Your task to perform on an android device: turn off notifications in google photos Image 0: 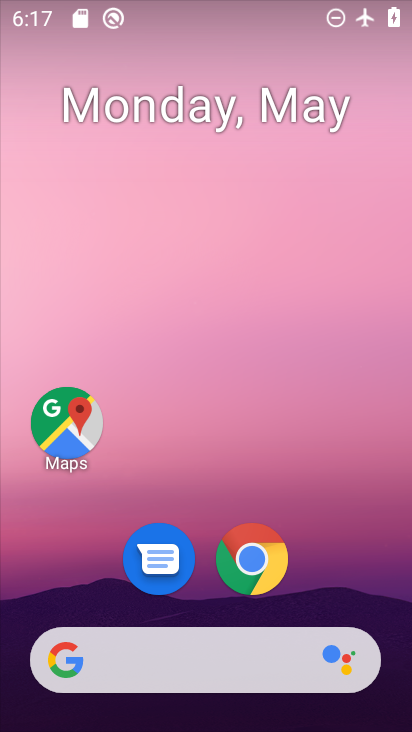
Step 0: drag from (355, 570) to (251, 91)
Your task to perform on an android device: turn off notifications in google photos Image 1: 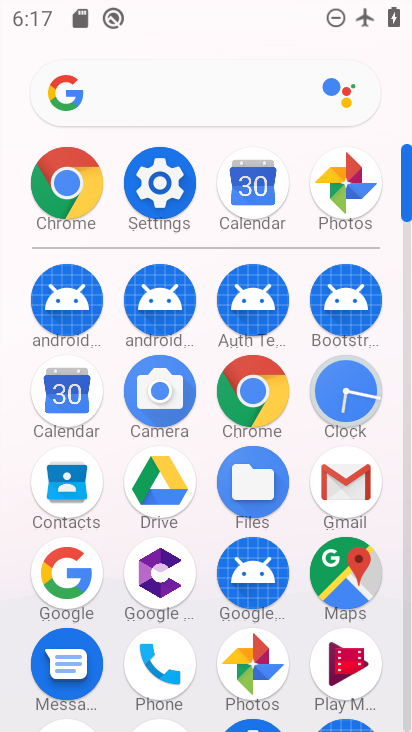
Step 1: click (350, 184)
Your task to perform on an android device: turn off notifications in google photos Image 2: 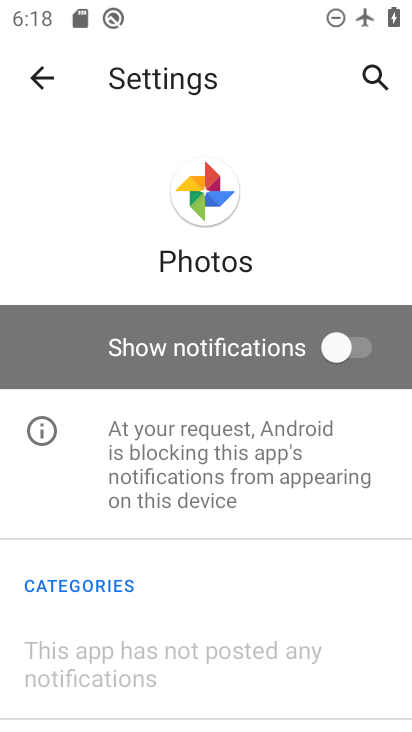
Step 2: task complete